Your task to perform on an android device: Show me popular videos on Youtube Image 0: 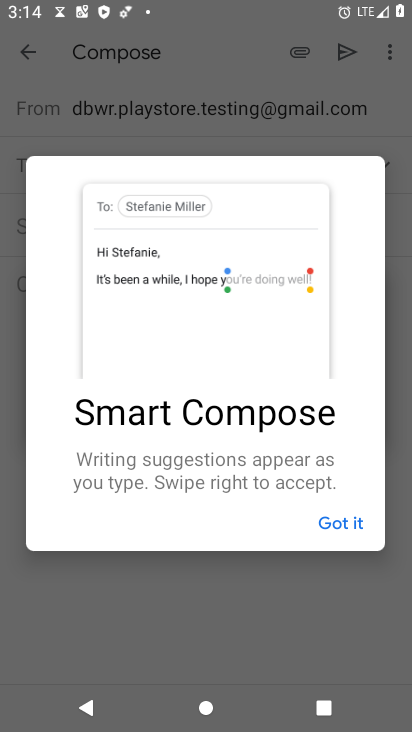
Step 0: press home button
Your task to perform on an android device: Show me popular videos on Youtube Image 1: 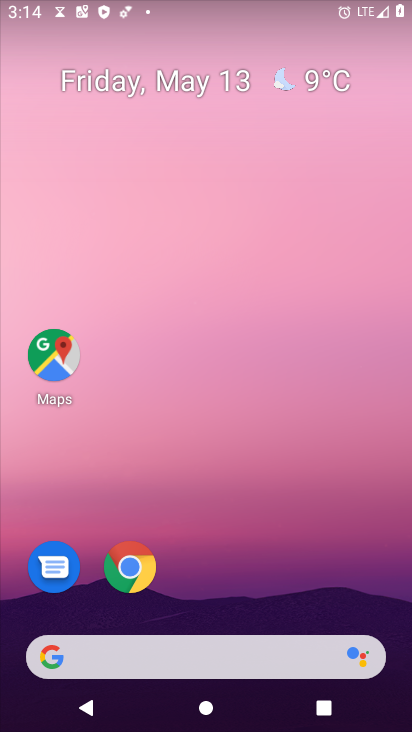
Step 1: drag from (329, 575) to (364, 4)
Your task to perform on an android device: Show me popular videos on Youtube Image 2: 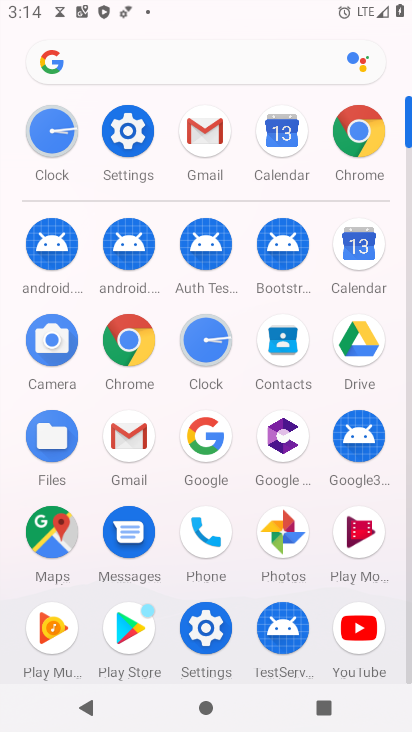
Step 2: click (354, 632)
Your task to perform on an android device: Show me popular videos on Youtube Image 3: 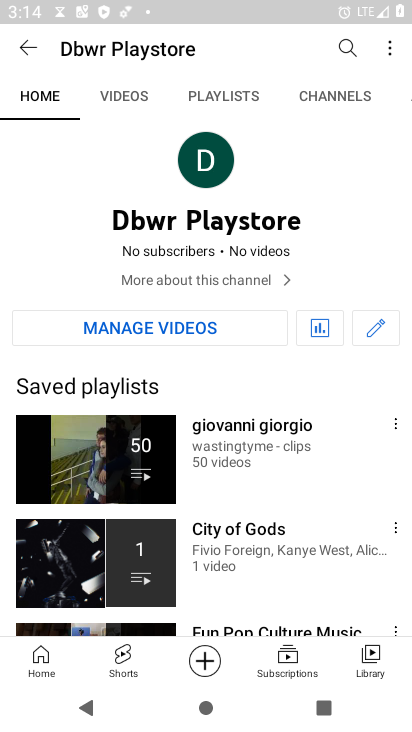
Step 3: click (46, 665)
Your task to perform on an android device: Show me popular videos on Youtube Image 4: 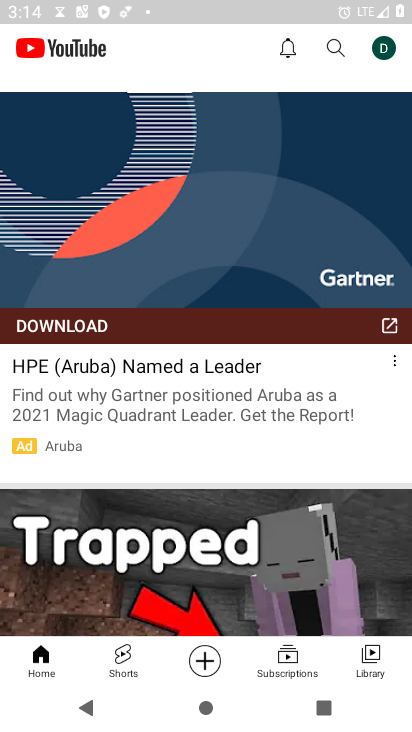
Step 4: task complete